Your task to perform on an android device: toggle translation in the chrome app Image 0: 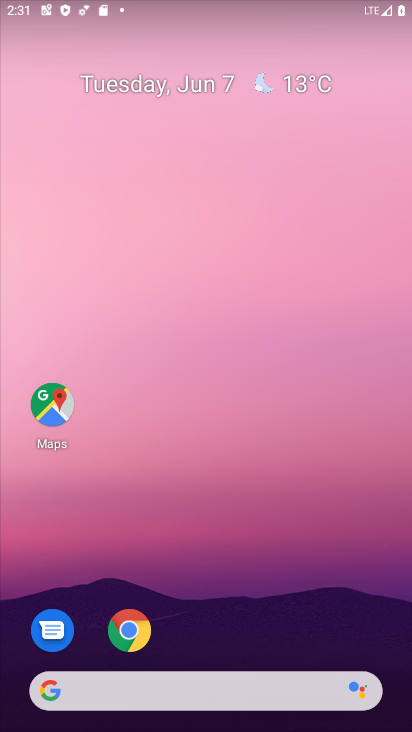
Step 0: click (126, 632)
Your task to perform on an android device: toggle translation in the chrome app Image 1: 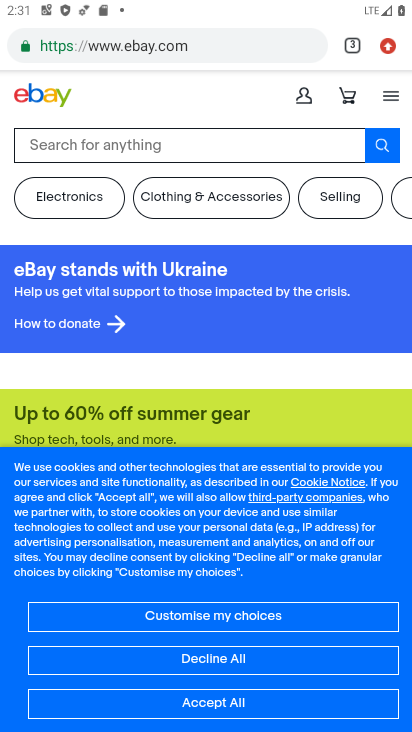
Step 1: click (346, 38)
Your task to perform on an android device: toggle translation in the chrome app Image 2: 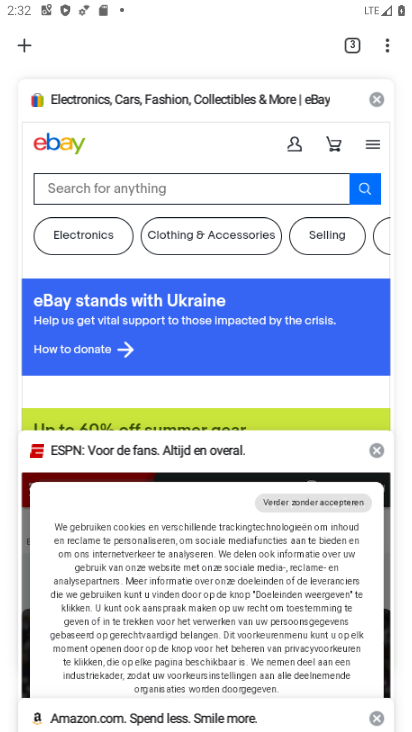
Step 2: click (382, 37)
Your task to perform on an android device: toggle translation in the chrome app Image 3: 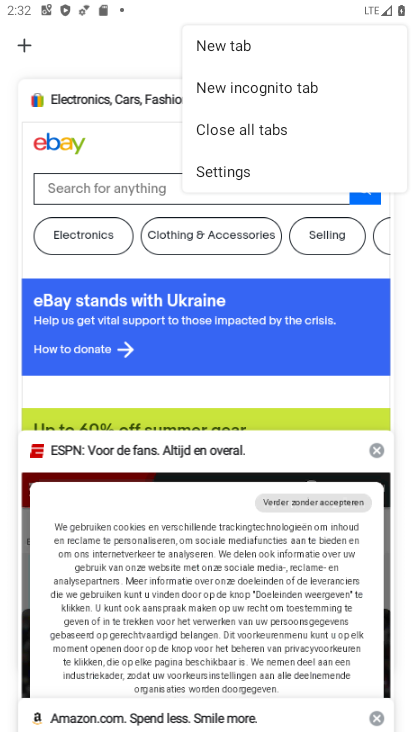
Step 3: click (237, 162)
Your task to perform on an android device: toggle translation in the chrome app Image 4: 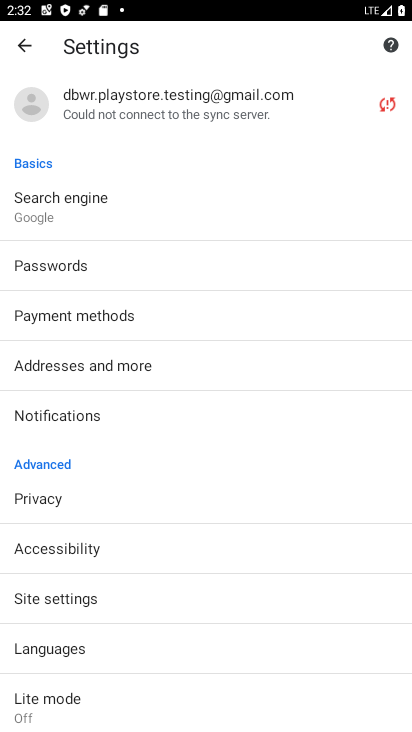
Step 4: click (64, 647)
Your task to perform on an android device: toggle translation in the chrome app Image 5: 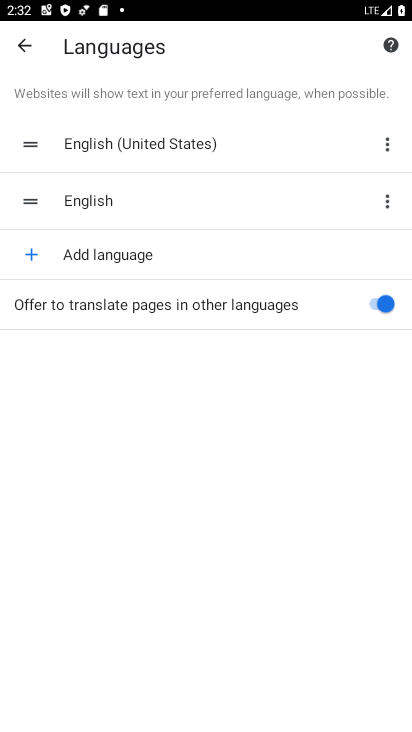
Step 5: click (382, 293)
Your task to perform on an android device: toggle translation in the chrome app Image 6: 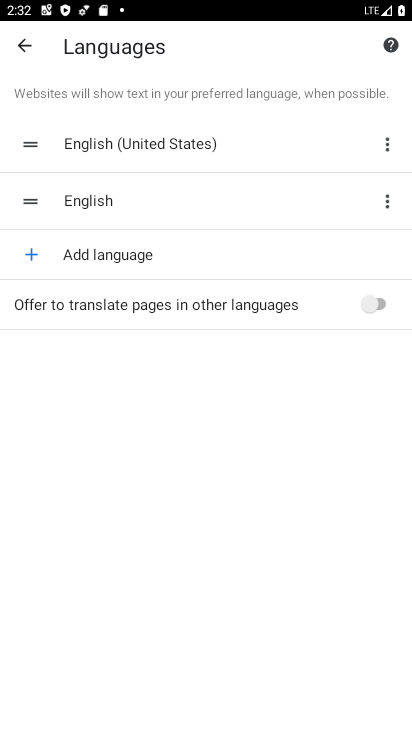
Step 6: task complete